Your task to perform on an android device: change the clock display to analog Image 0: 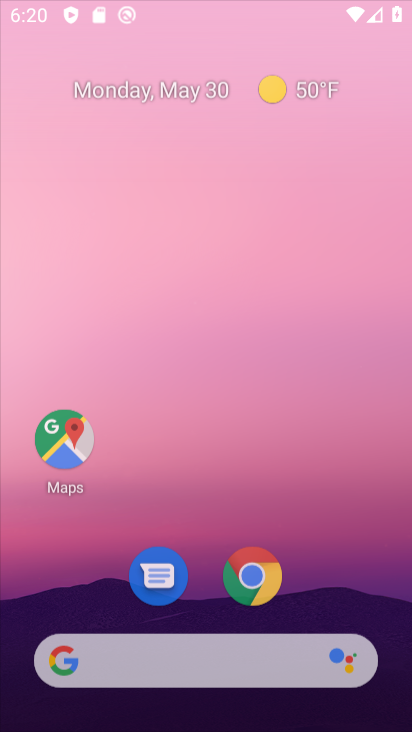
Step 0: press back button
Your task to perform on an android device: change the clock display to analog Image 1: 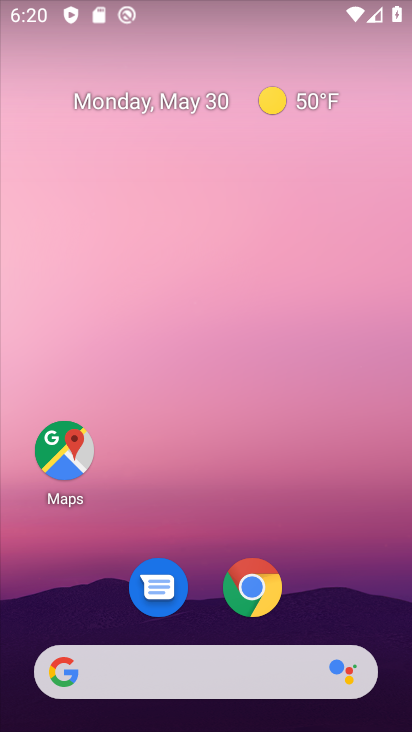
Step 1: drag from (314, 554) to (183, 20)
Your task to perform on an android device: change the clock display to analog Image 2: 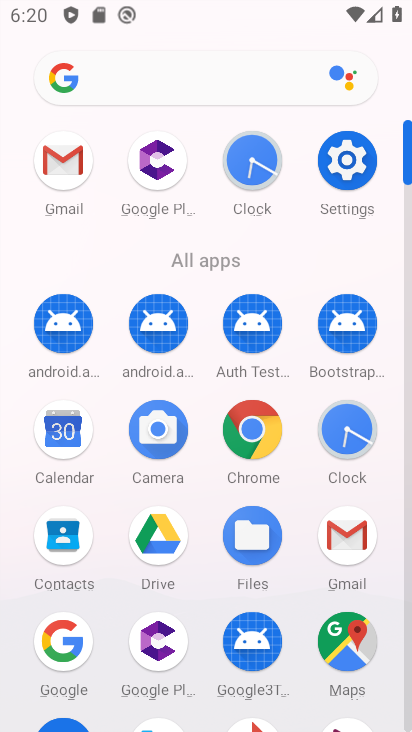
Step 2: drag from (19, 597) to (35, 330)
Your task to perform on an android device: change the clock display to analog Image 3: 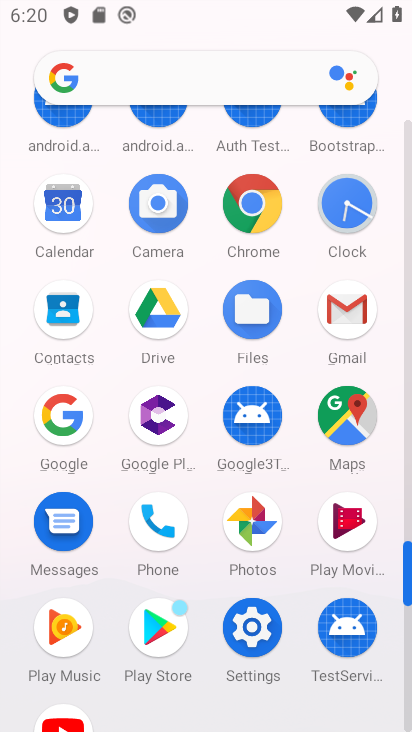
Step 3: click (348, 201)
Your task to perform on an android device: change the clock display to analog Image 4: 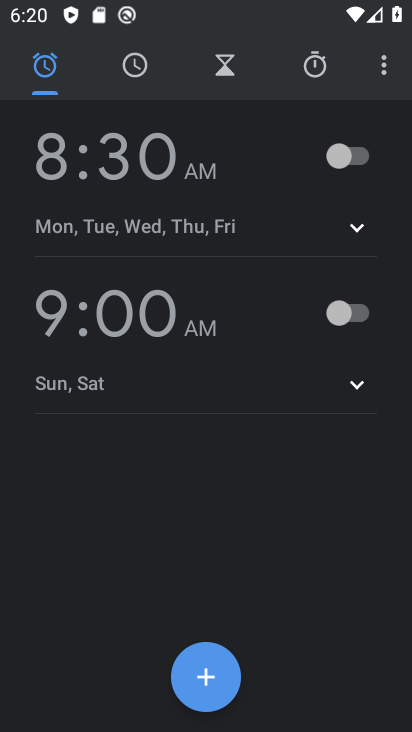
Step 4: drag from (379, 65) to (304, 121)
Your task to perform on an android device: change the clock display to analog Image 5: 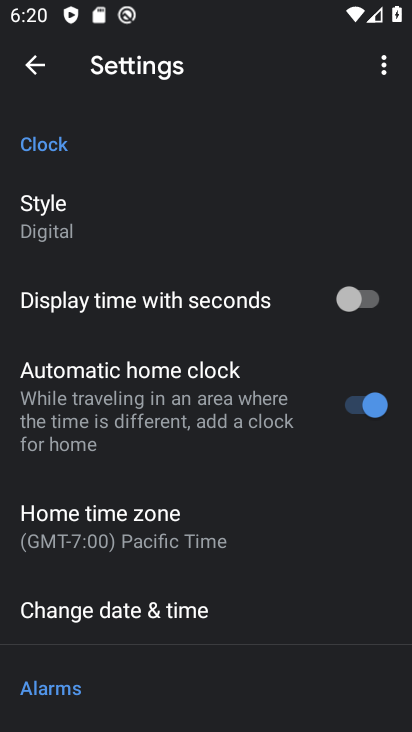
Step 5: click (96, 211)
Your task to perform on an android device: change the clock display to analog Image 6: 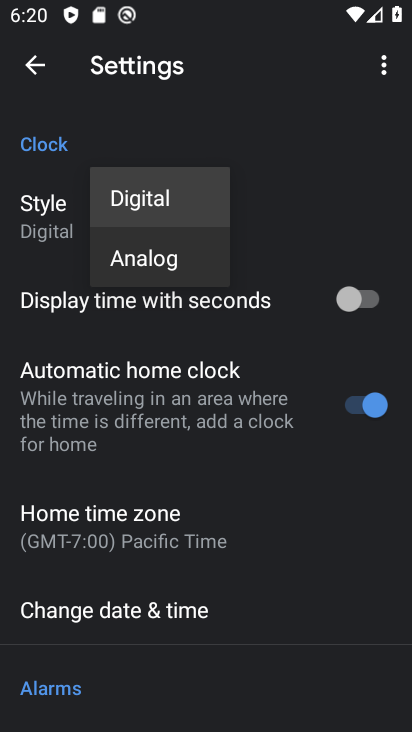
Step 6: click (126, 248)
Your task to perform on an android device: change the clock display to analog Image 7: 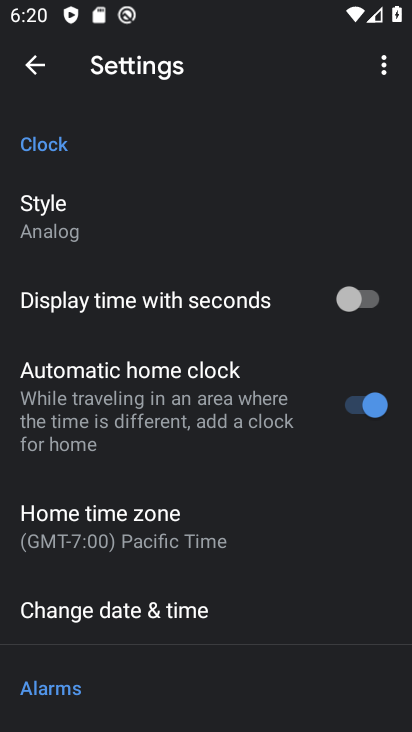
Step 7: task complete